Your task to perform on an android device: delete browsing data in the chrome app Image 0: 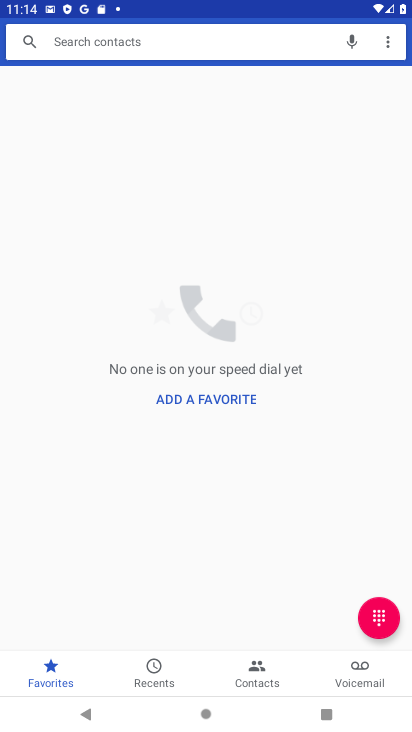
Step 0: press home button
Your task to perform on an android device: delete browsing data in the chrome app Image 1: 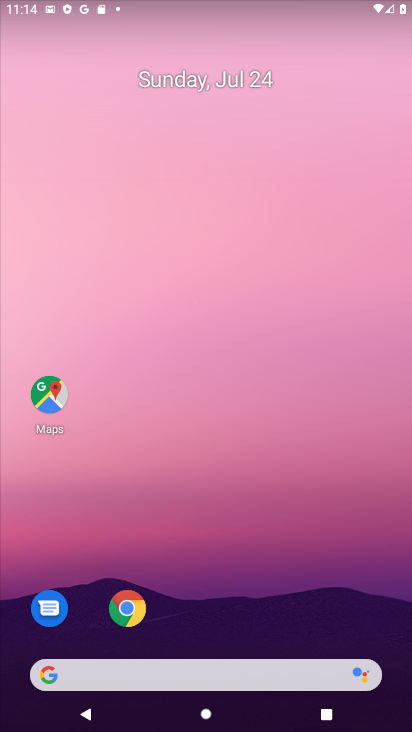
Step 1: drag from (234, 455) to (311, 18)
Your task to perform on an android device: delete browsing data in the chrome app Image 2: 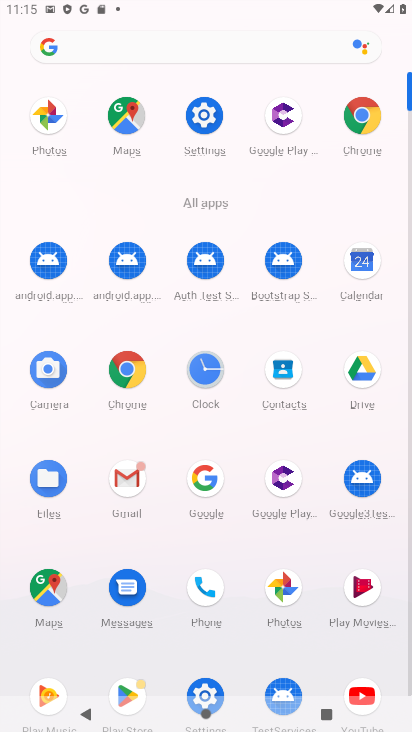
Step 2: click (364, 112)
Your task to perform on an android device: delete browsing data in the chrome app Image 3: 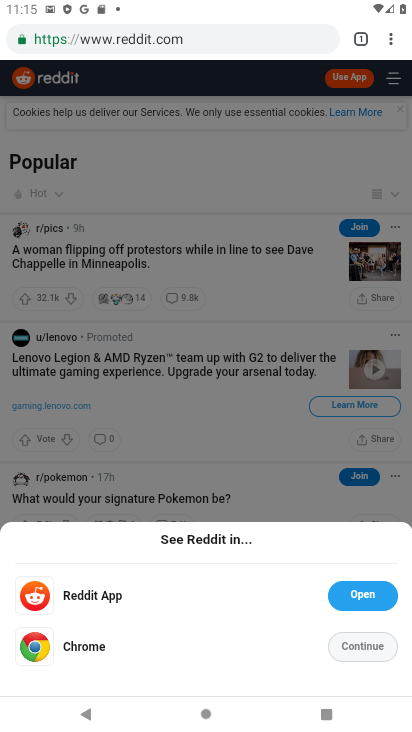
Step 3: drag from (402, 33) to (296, 213)
Your task to perform on an android device: delete browsing data in the chrome app Image 4: 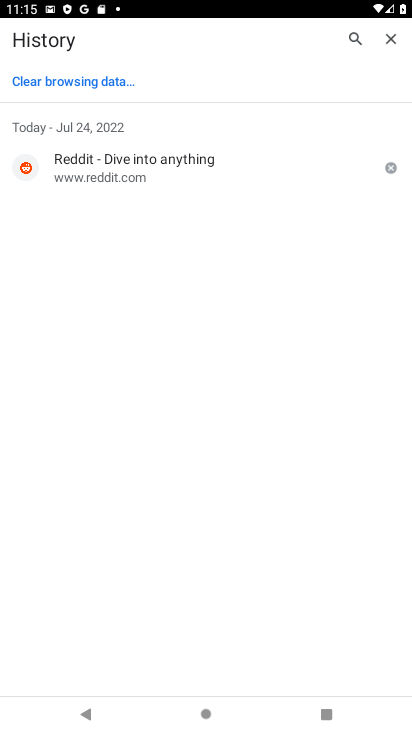
Step 4: click (99, 83)
Your task to perform on an android device: delete browsing data in the chrome app Image 5: 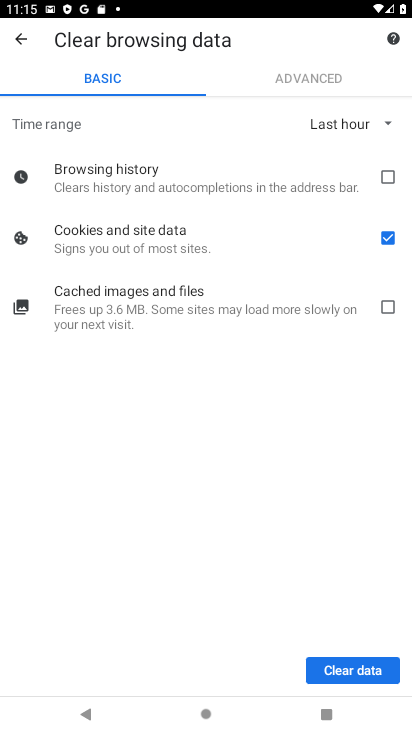
Step 5: click (380, 178)
Your task to perform on an android device: delete browsing data in the chrome app Image 6: 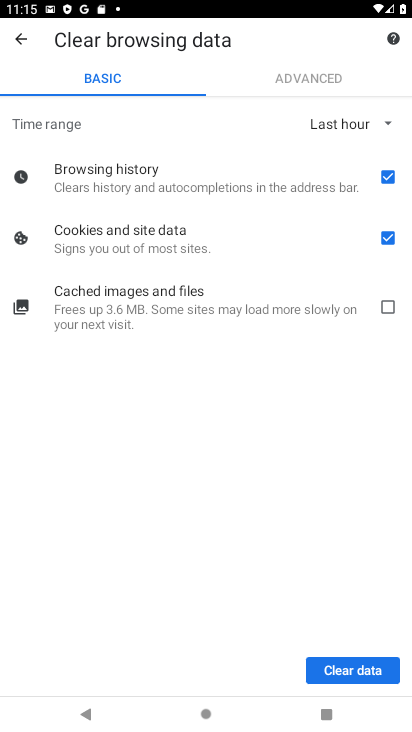
Step 6: click (382, 242)
Your task to perform on an android device: delete browsing data in the chrome app Image 7: 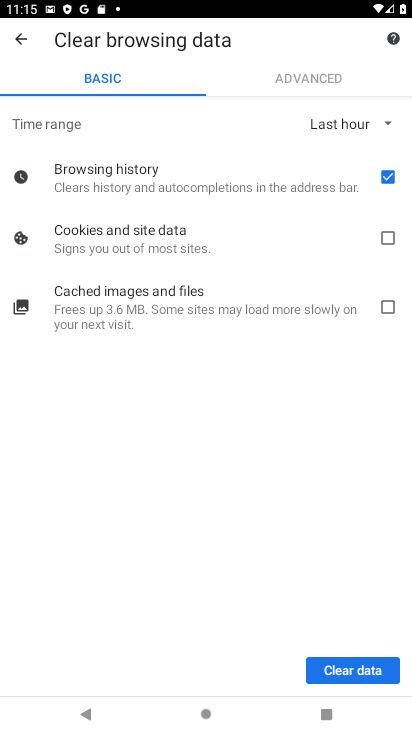
Step 7: click (339, 669)
Your task to perform on an android device: delete browsing data in the chrome app Image 8: 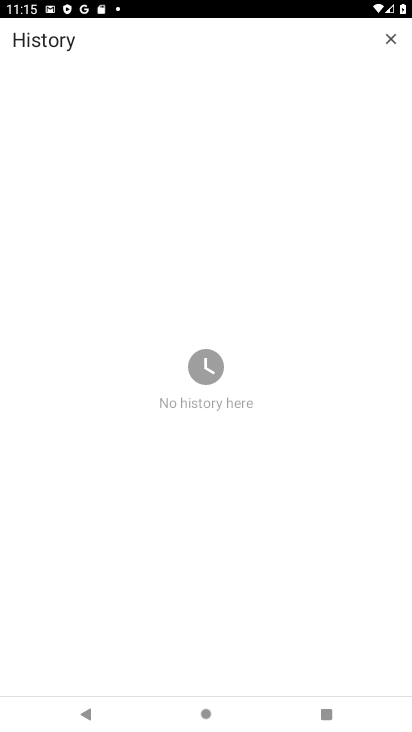
Step 8: task complete